Your task to perform on an android device: Open Google Chrome Image 0: 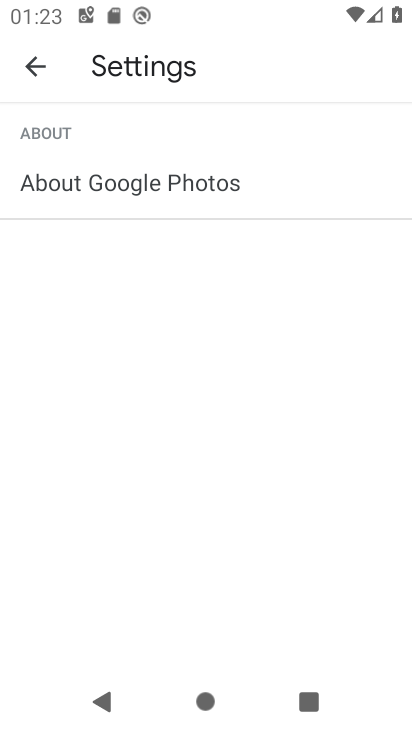
Step 0: press home button
Your task to perform on an android device: Open Google Chrome Image 1: 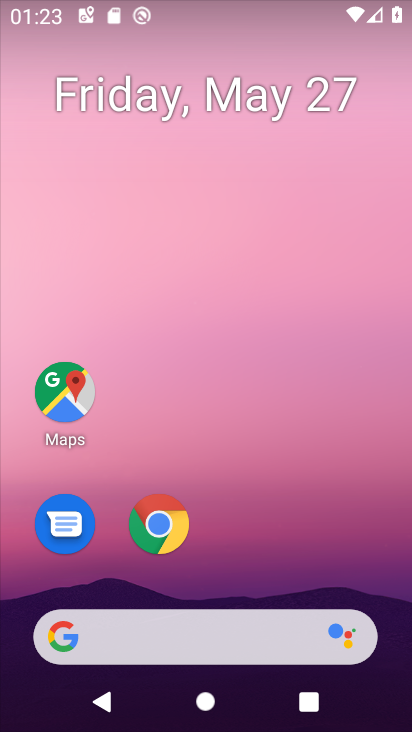
Step 1: click (165, 517)
Your task to perform on an android device: Open Google Chrome Image 2: 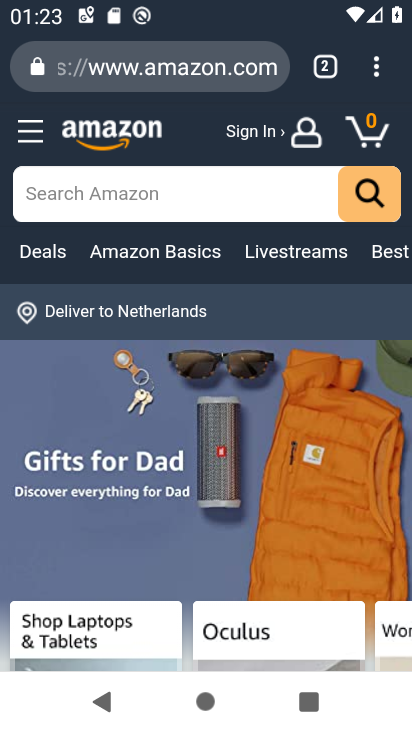
Step 2: click (373, 70)
Your task to perform on an android device: Open Google Chrome Image 3: 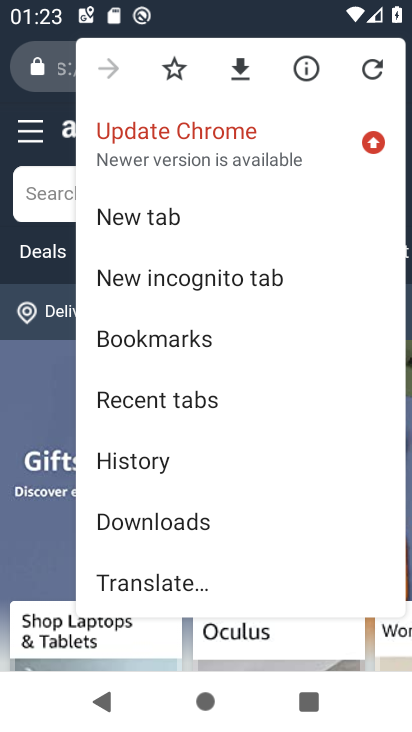
Step 3: click (238, 209)
Your task to perform on an android device: Open Google Chrome Image 4: 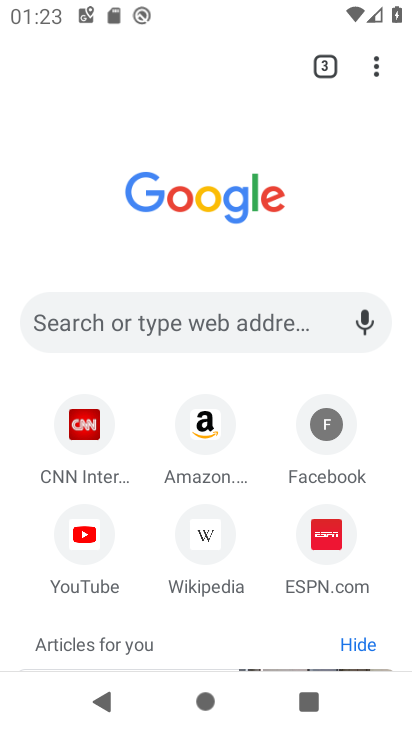
Step 4: task complete